Your task to perform on an android device: Open the calendar app, open the side menu, and click the "Day" option Image 0: 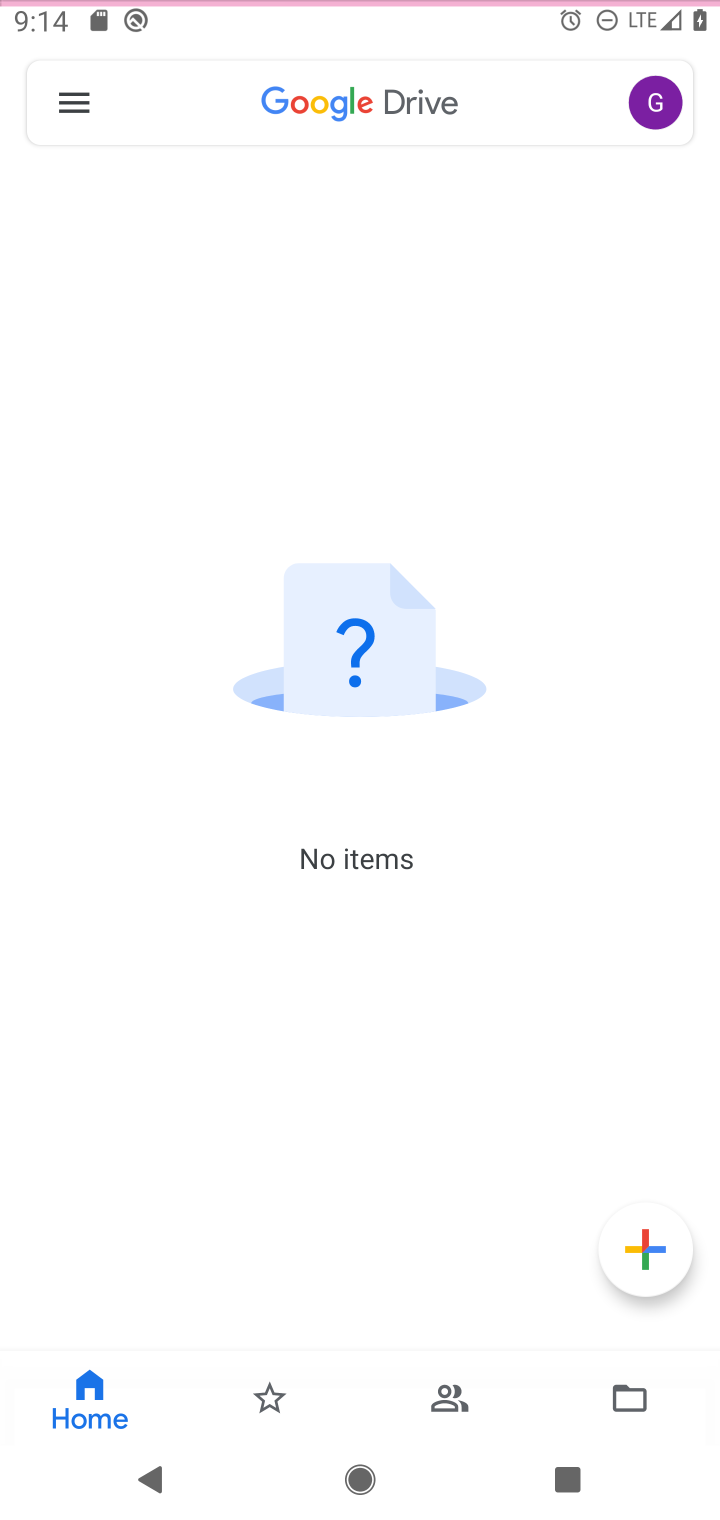
Step 0: press home button
Your task to perform on an android device: Open the calendar app, open the side menu, and click the "Day" option Image 1: 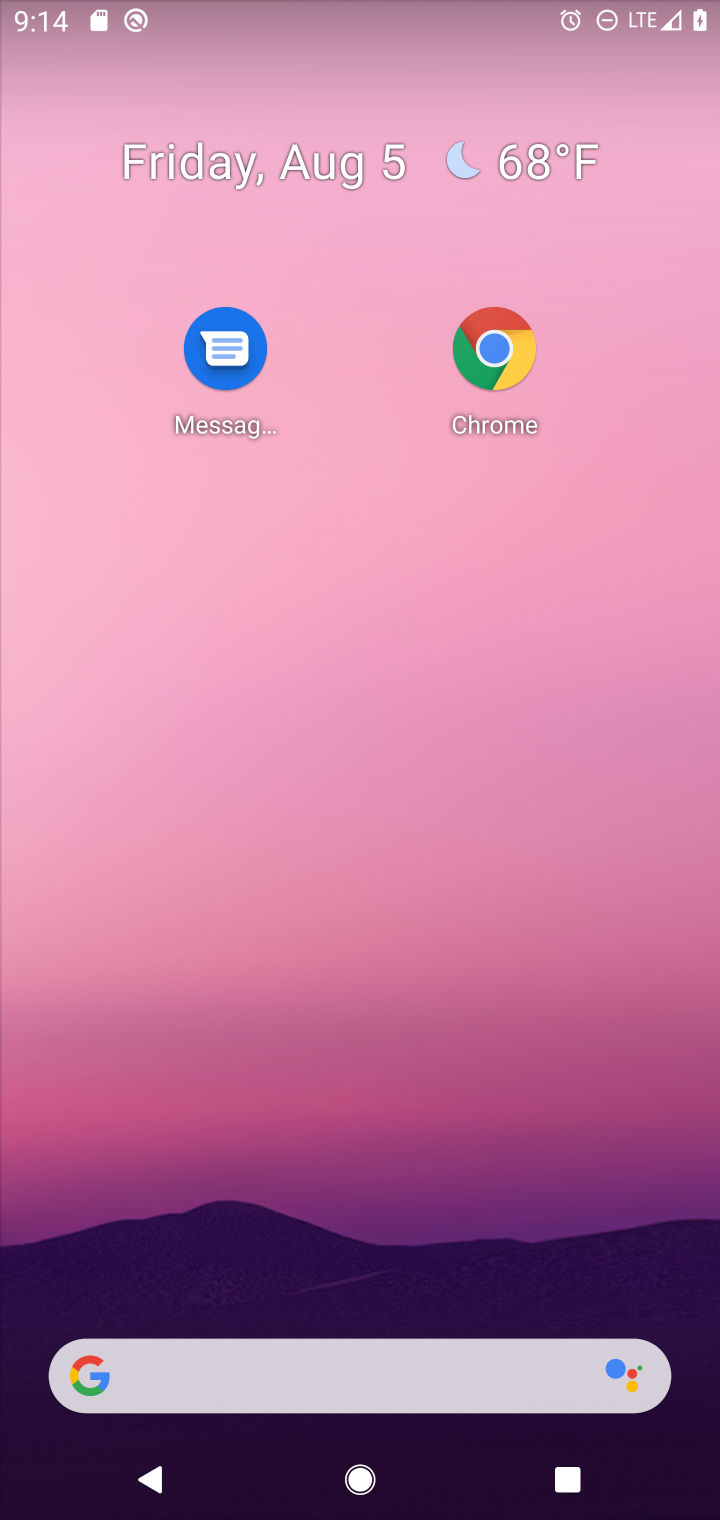
Step 1: drag from (457, 1428) to (422, 420)
Your task to perform on an android device: Open the calendar app, open the side menu, and click the "Day" option Image 2: 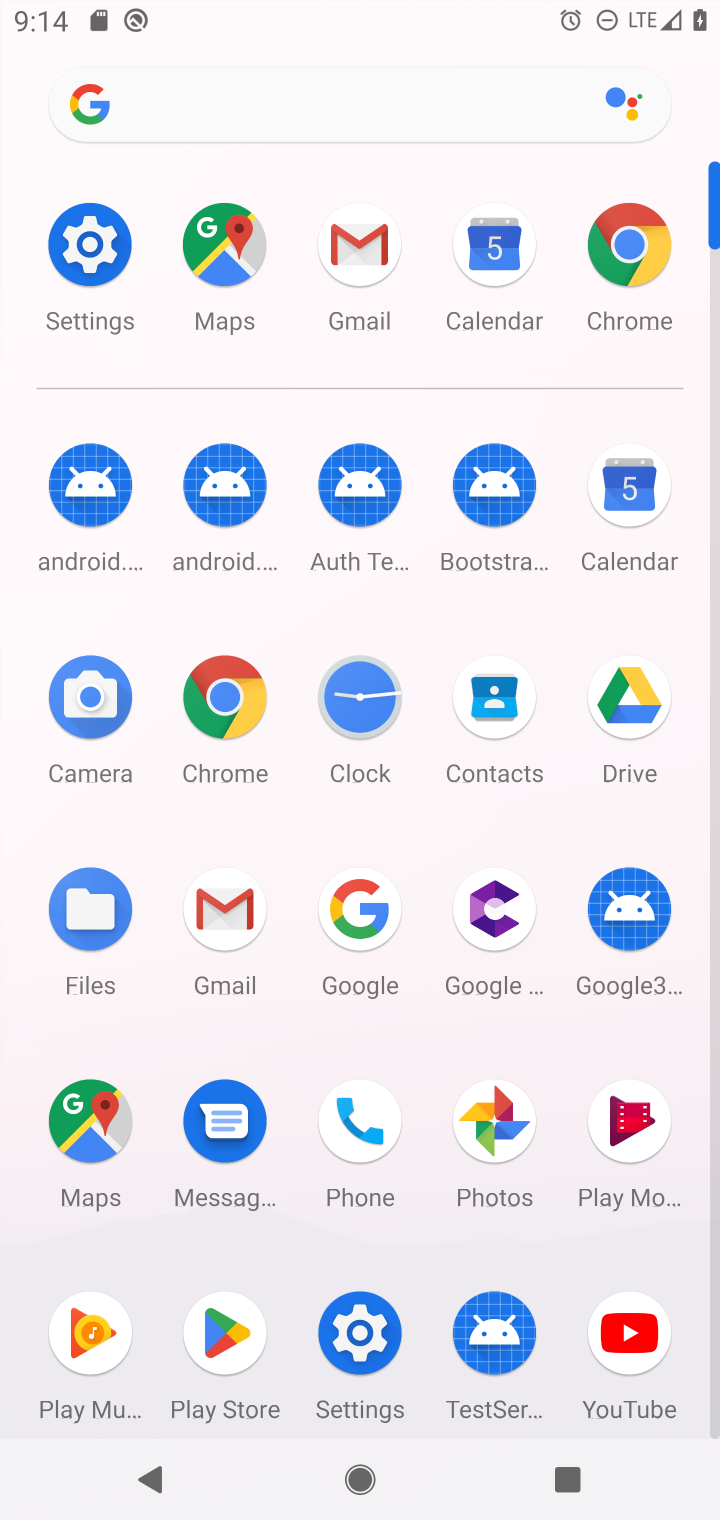
Step 2: click (637, 515)
Your task to perform on an android device: Open the calendar app, open the side menu, and click the "Day" option Image 3: 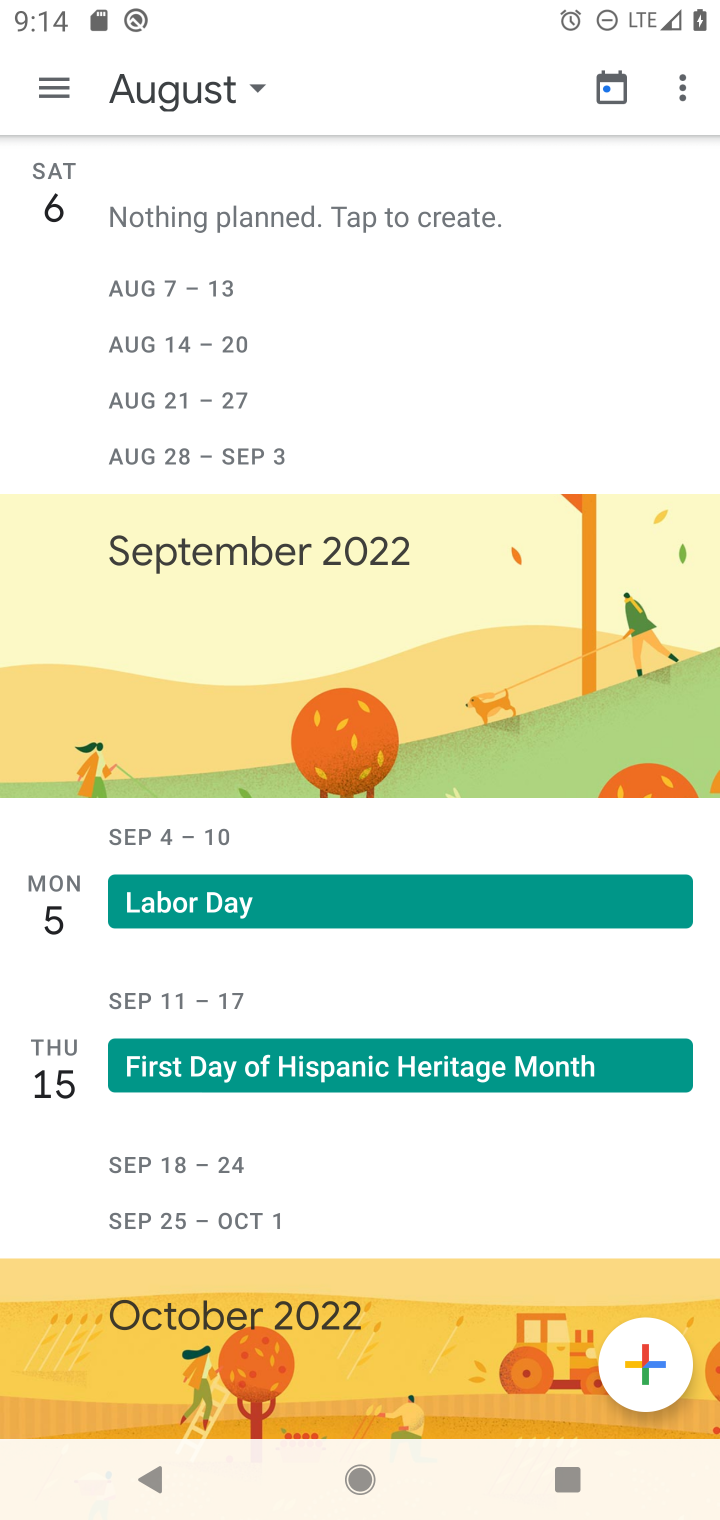
Step 3: click (45, 85)
Your task to perform on an android device: Open the calendar app, open the side menu, and click the "Day" option Image 4: 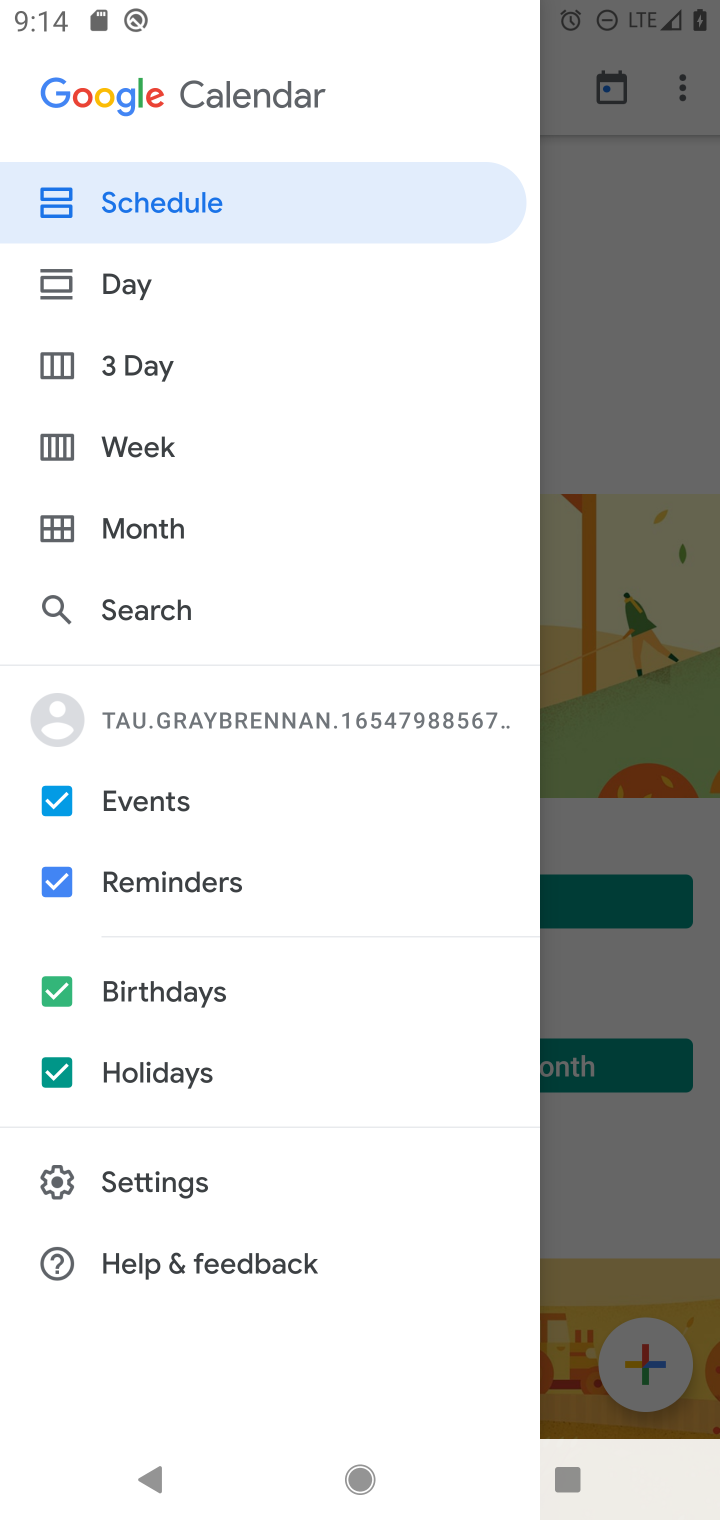
Step 4: click (153, 291)
Your task to perform on an android device: Open the calendar app, open the side menu, and click the "Day" option Image 5: 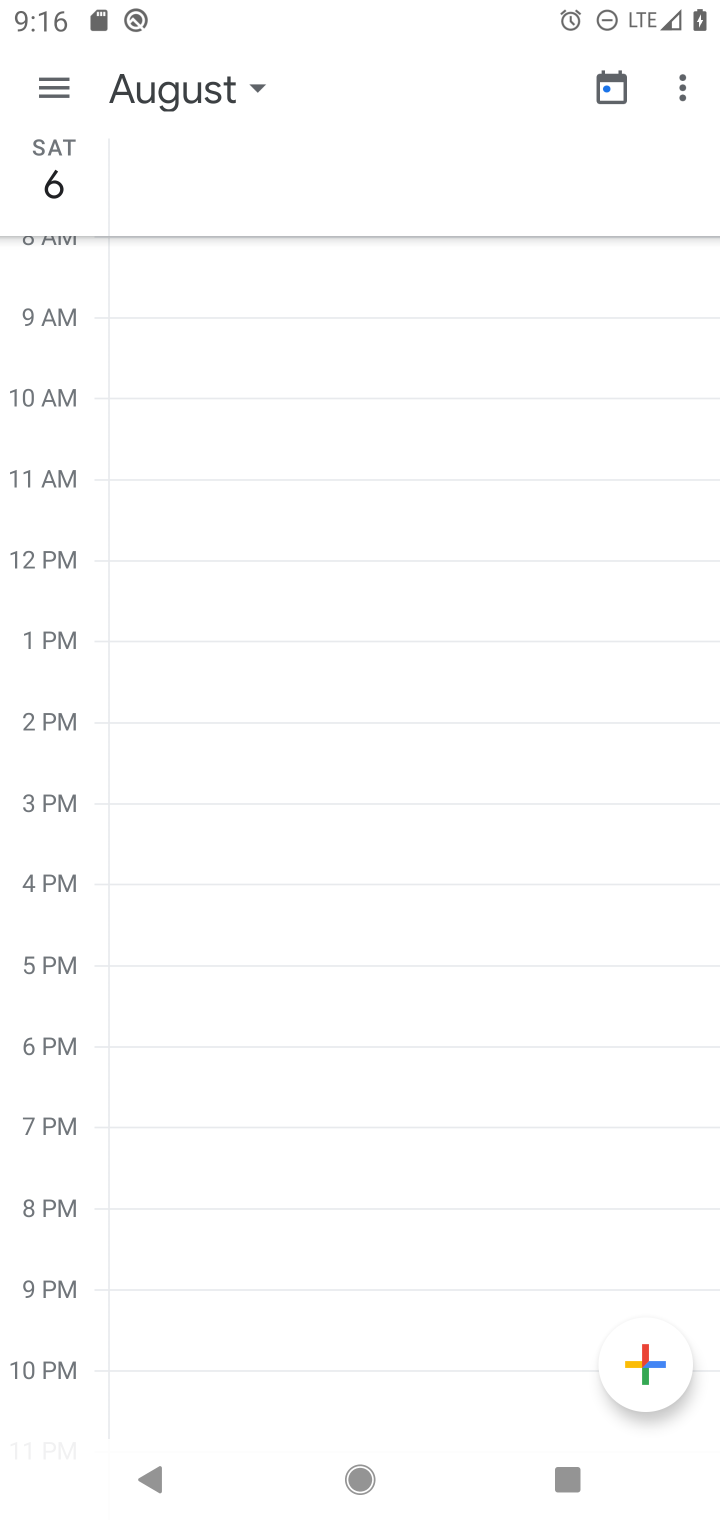
Step 5: task complete